Your task to perform on an android device: Open accessibility settings Image 0: 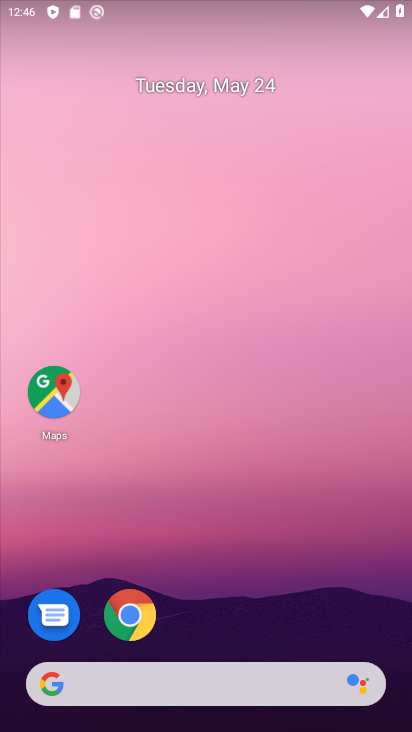
Step 0: press home button
Your task to perform on an android device: Open accessibility settings Image 1: 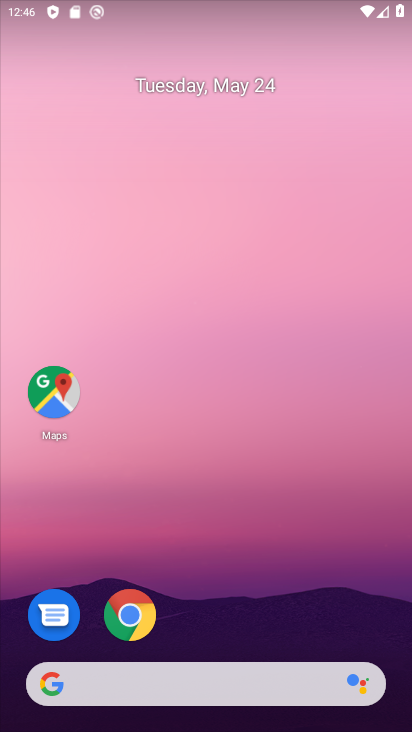
Step 1: drag from (211, 640) to (247, 107)
Your task to perform on an android device: Open accessibility settings Image 2: 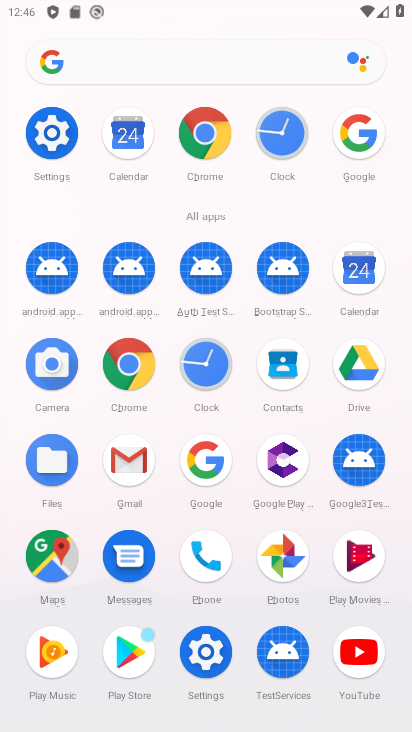
Step 2: click (204, 646)
Your task to perform on an android device: Open accessibility settings Image 3: 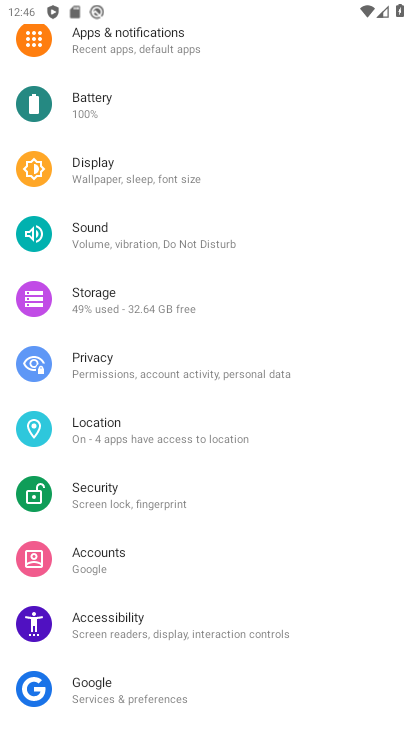
Step 3: click (154, 613)
Your task to perform on an android device: Open accessibility settings Image 4: 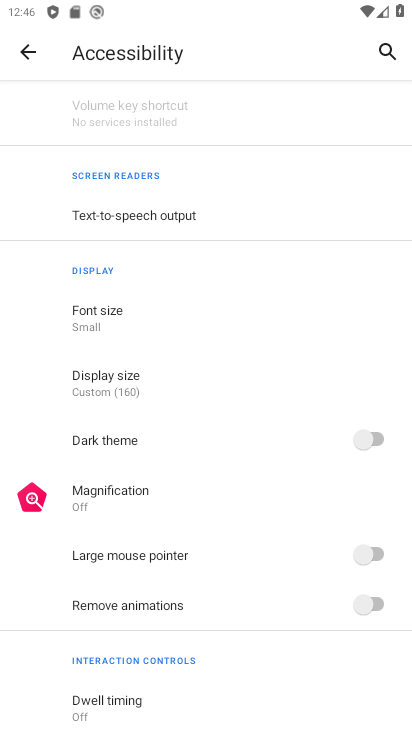
Step 4: task complete